Your task to perform on an android device: install app "Spotify: Music and Podcasts" Image 0: 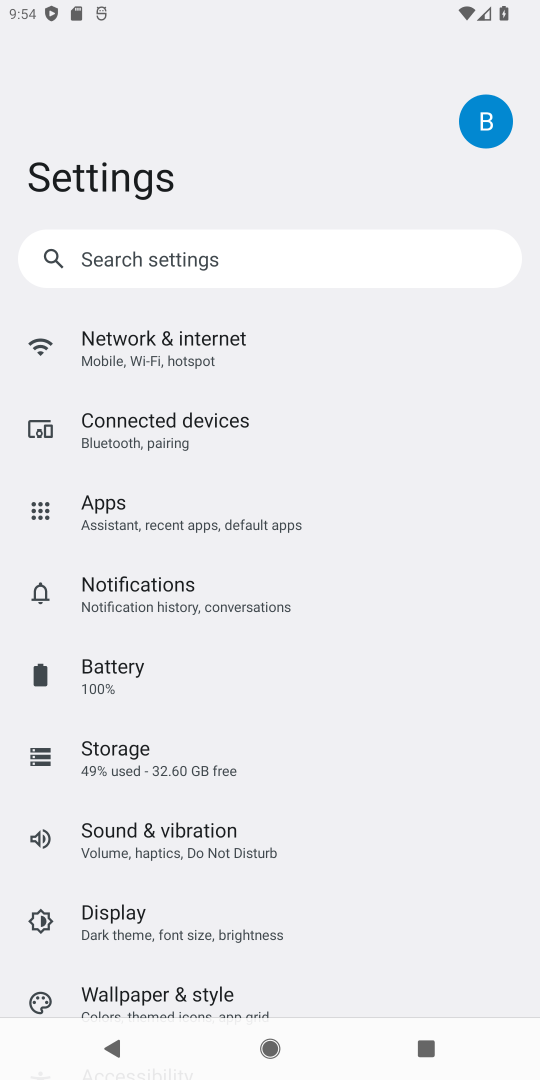
Step 0: press home button
Your task to perform on an android device: install app "Spotify: Music and Podcasts" Image 1: 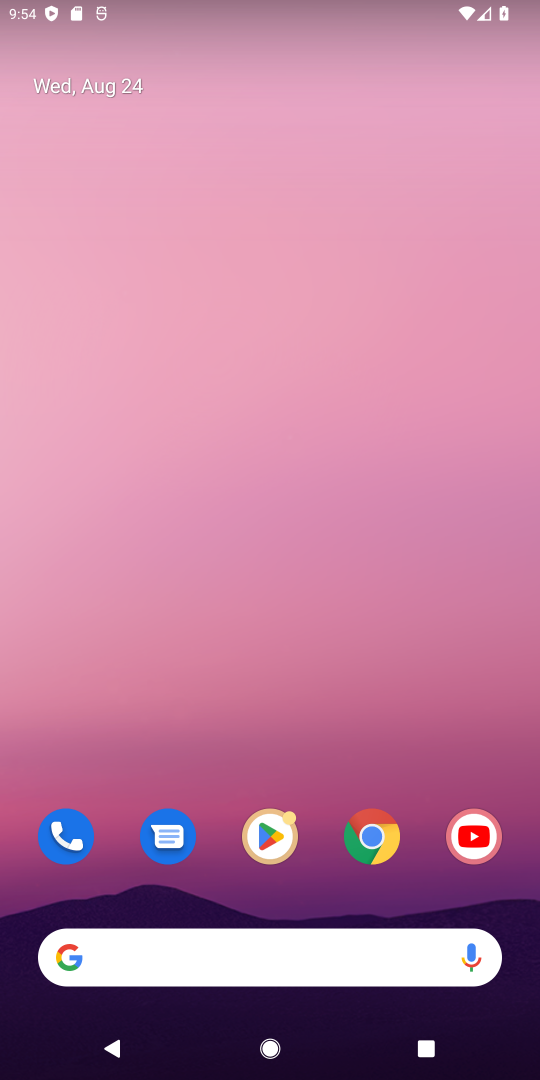
Step 1: click (256, 847)
Your task to perform on an android device: install app "Spotify: Music and Podcasts" Image 2: 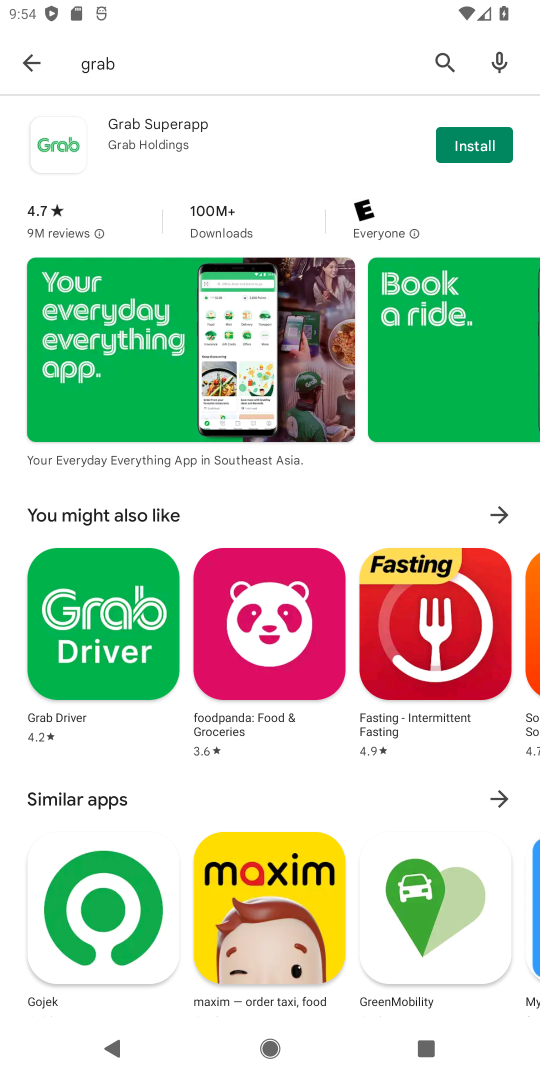
Step 2: click (445, 64)
Your task to perform on an android device: install app "Spotify: Music and Podcasts" Image 3: 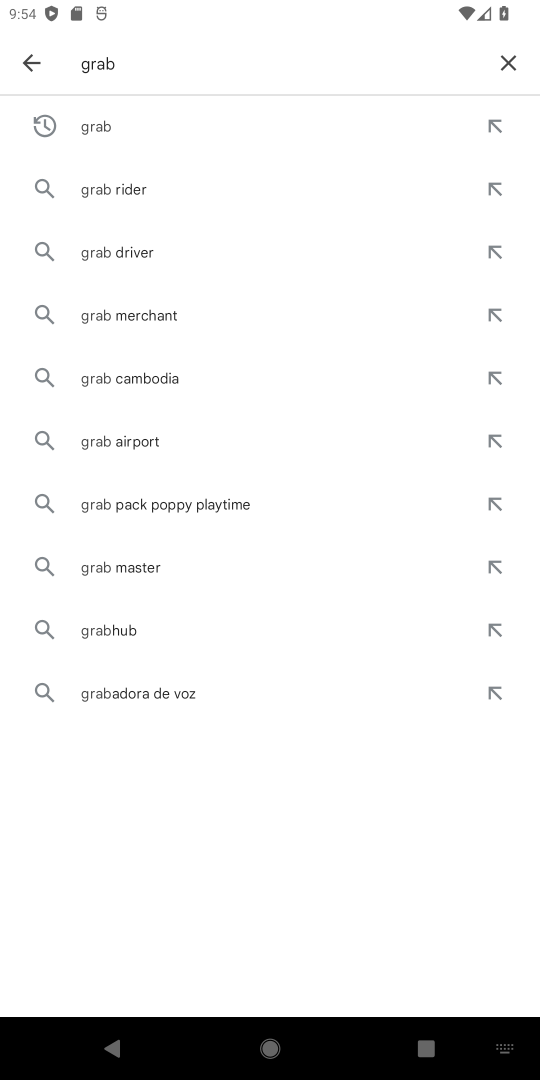
Step 3: click (503, 54)
Your task to perform on an android device: install app "Spotify: Music and Podcasts" Image 4: 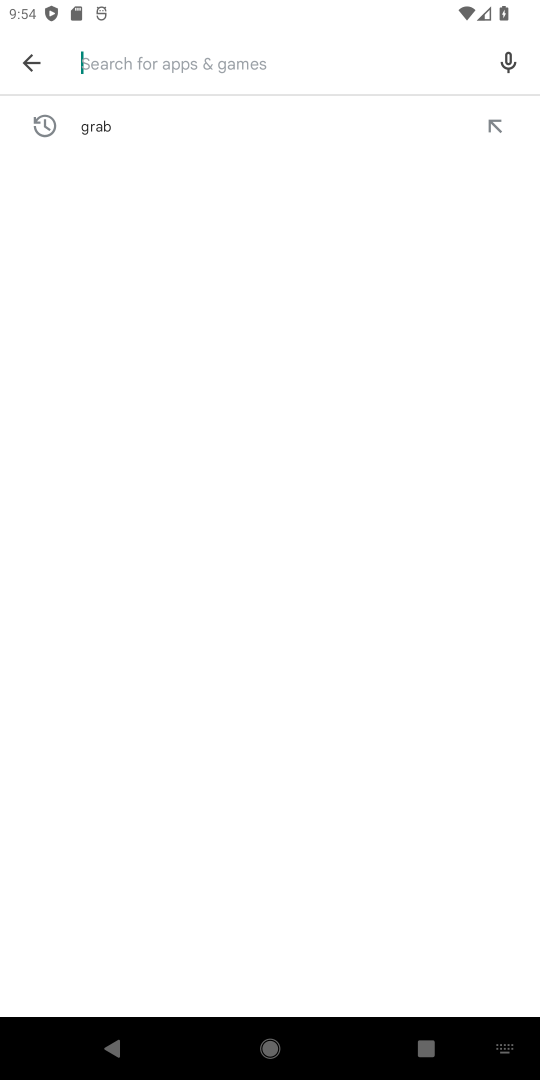
Step 4: type "Spotify: Music and Podcasts"
Your task to perform on an android device: install app "Spotify: Music and Podcasts" Image 5: 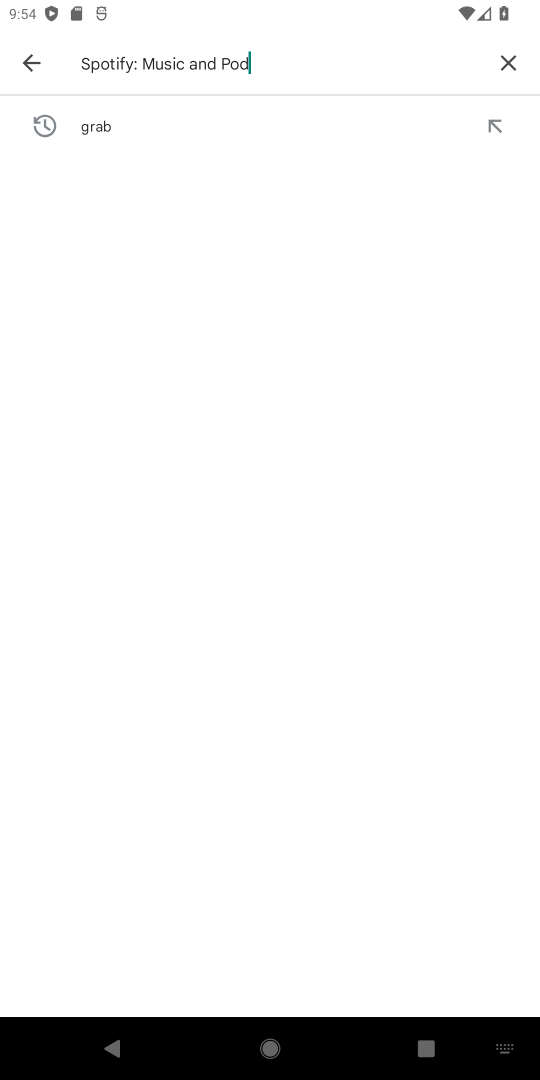
Step 5: type ""
Your task to perform on an android device: install app "Spotify: Music and Podcasts" Image 6: 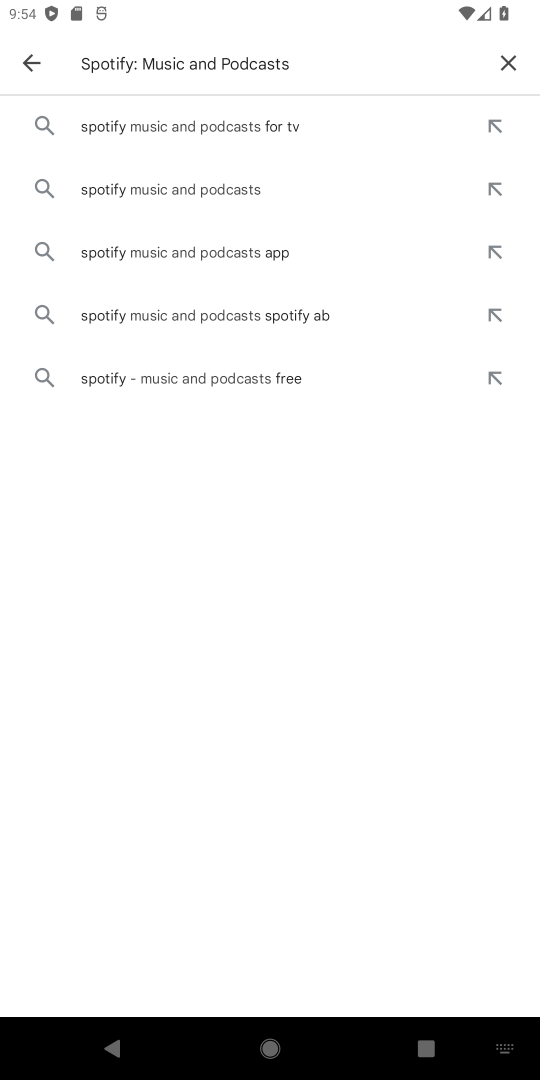
Step 6: click (159, 110)
Your task to perform on an android device: install app "Spotify: Music and Podcasts" Image 7: 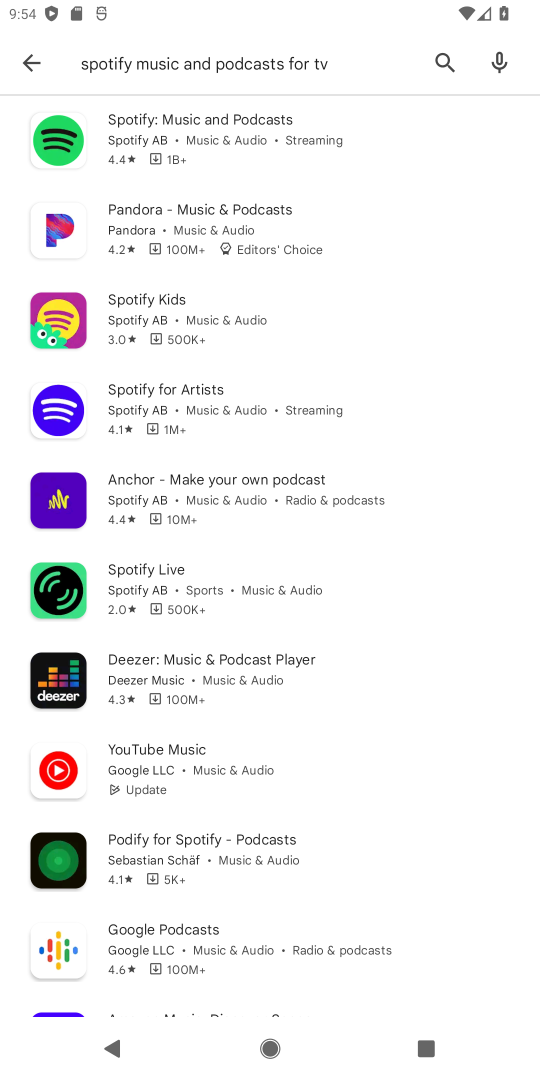
Step 7: click (215, 145)
Your task to perform on an android device: install app "Spotify: Music and Podcasts" Image 8: 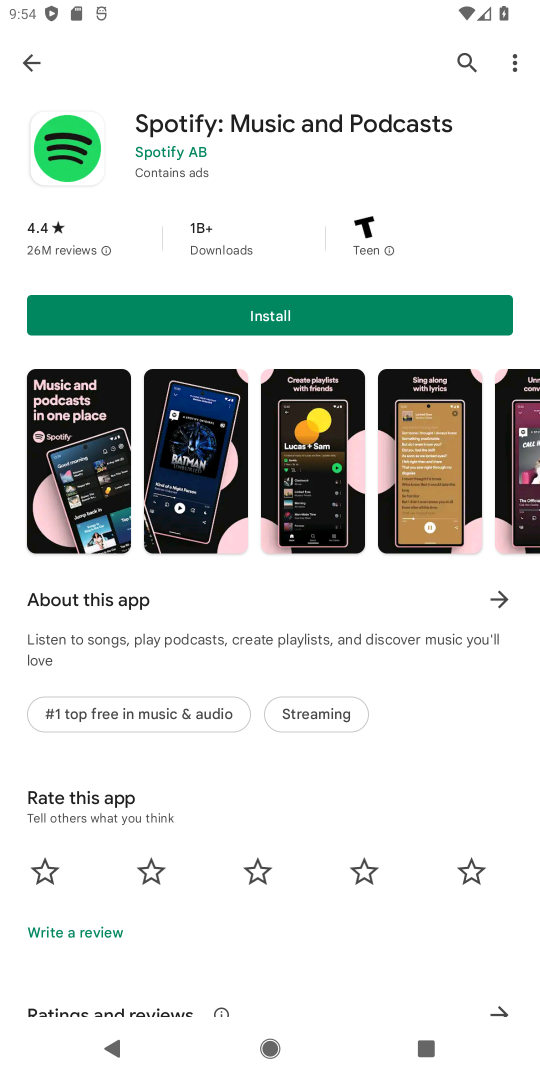
Step 8: click (322, 301)
Your task to perform on an android device: install app "Spotify: Music and Podcasts" Image 9: 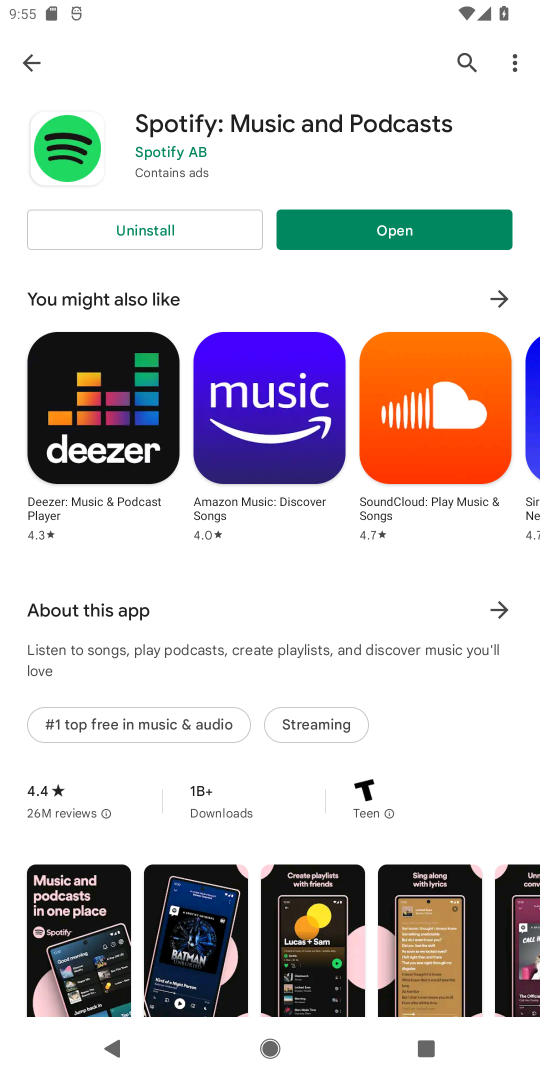
Step 9: task complete